Your task to perform on an android device: Go to wifi settings Image 0: 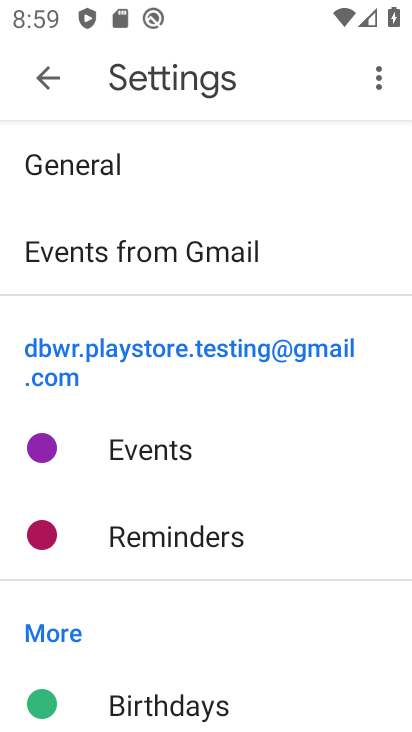
Step 0: press home button
Your task to perform on an android device: Go to wifi settings Image 1: 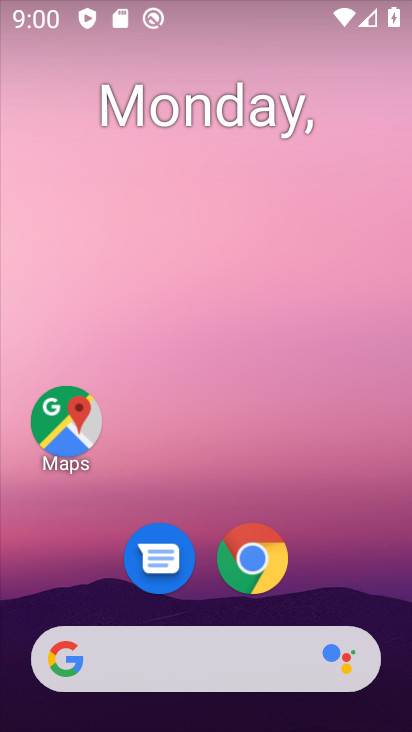
Step 1: drag from (161, 11) to (3, 360)
Your task to perform on an android device: Go to wifi settings Image 2: 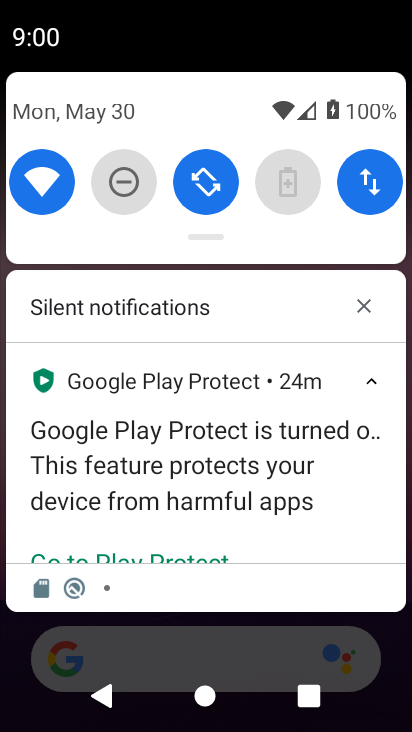
Step 2: click (48, 181)
Your task to perform on an android device: Go to wifi settings Image 3: 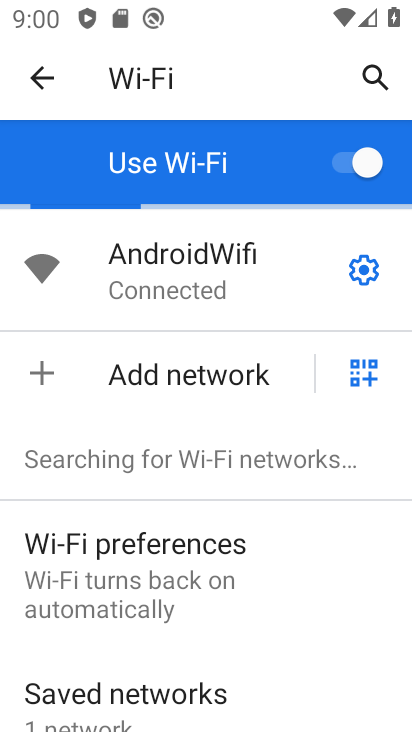
Step 3: task complete